Your task to perform on an android device: empty trash in google photos Image 0: 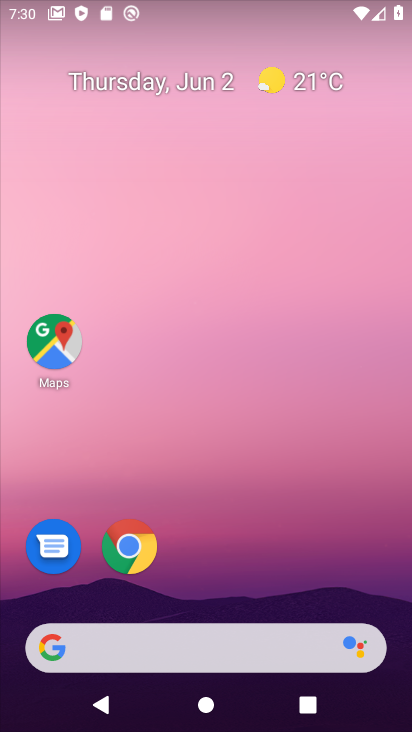
Step 0: drag from (260, 412) to (229, 107)
Your task to perform on an android device: empty trash in google photos Image 1: 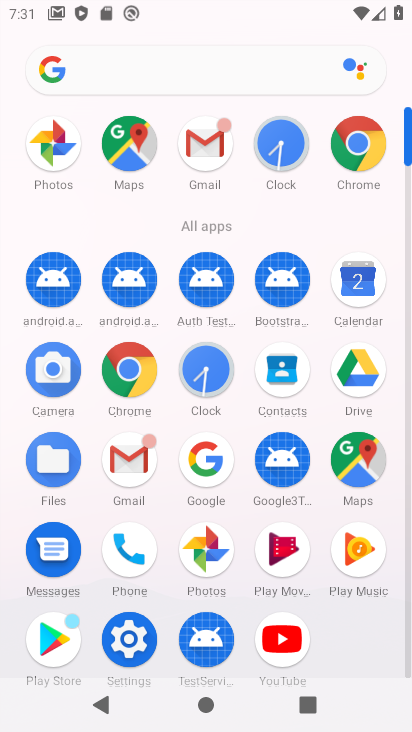
Step 1: click (196, 562)
Your task to perform on an android device: empty trash in google photos Image 2: 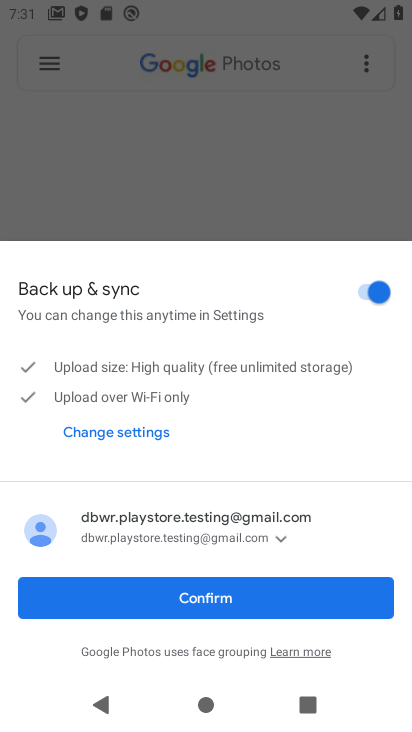
Step 2: click (260, 601)
Your task to perform on an android device: empty trash in google photos Image 3: 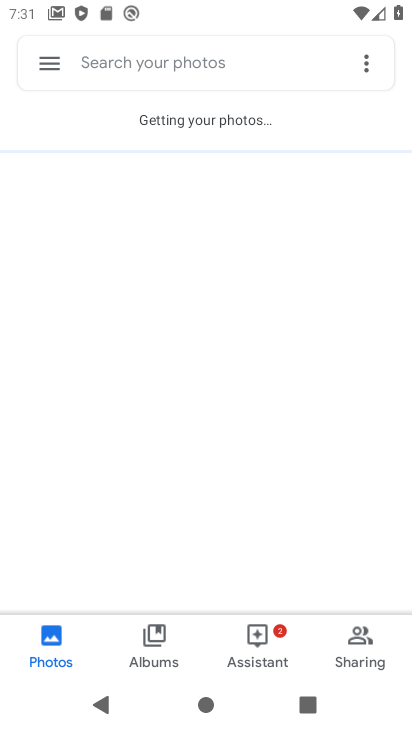
Step 3: click (41, 71)
Your task to perform on an android device: empty trash in google photos Image 4: 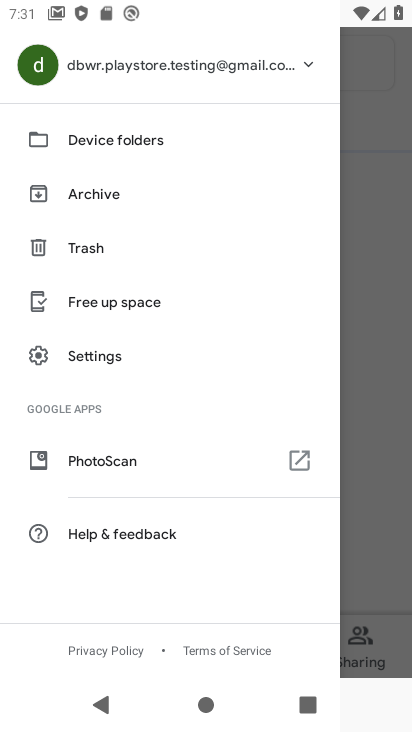
Step 4: click (93, 250)
Your task to perform on an android device: empty trash in google photos Image 5: 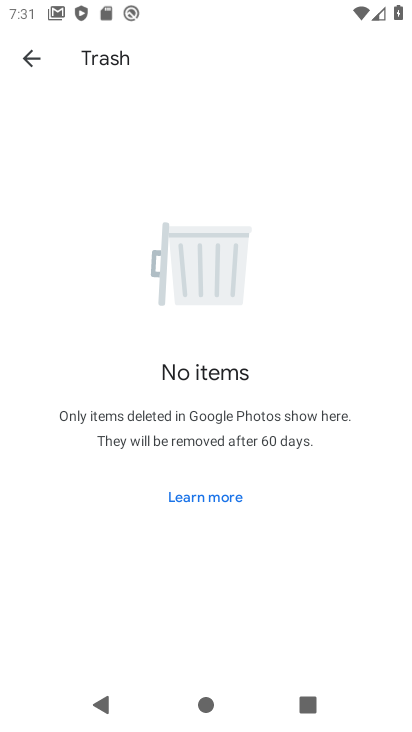
Step 5: task complete